Your task to perform on an android device: check out phone information Image 0: 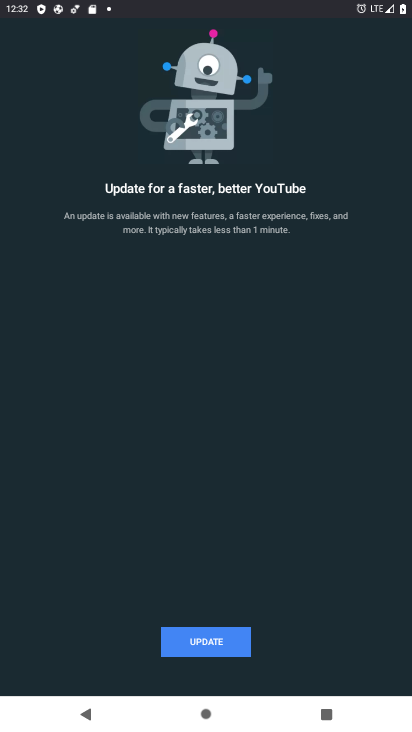
Step 0: press home button
Your task to perform on an android device: check out phone information Image 1: 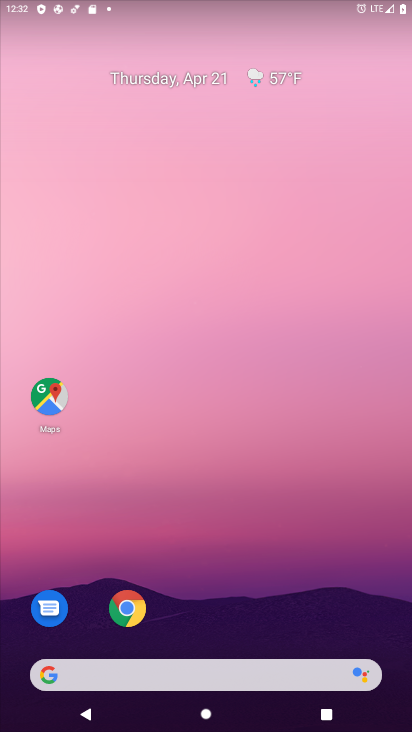
Step 1: drag from (213, 619) to (243, 166)
Your task to perform on an android device: check out phone information Image 2: 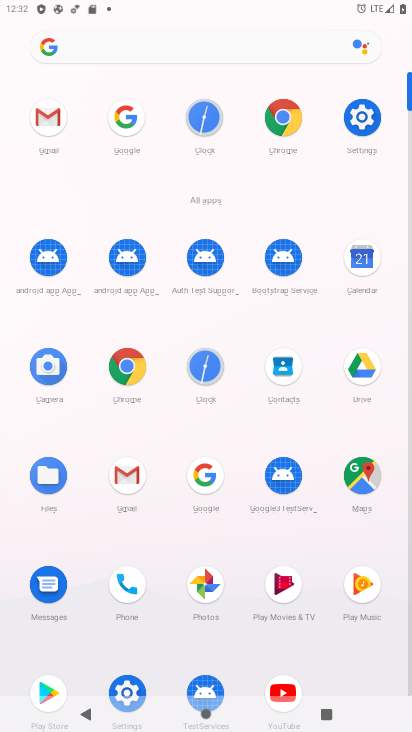
Step 2: click (355, 125)
Your task to perform on an android device: check out phone information Image 3: 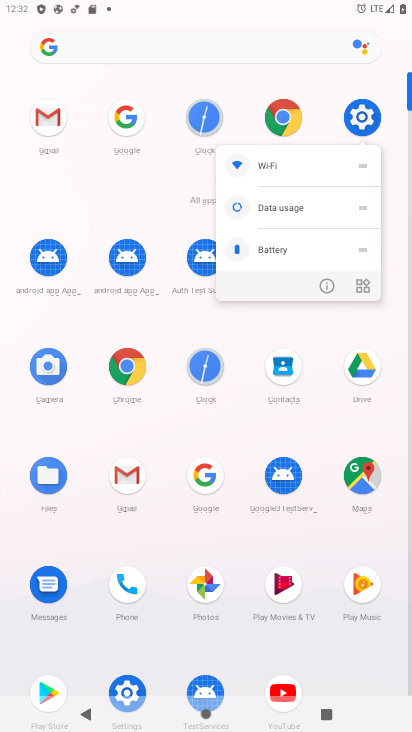
Step 3: click (363, 119)
Your task to perform on an android device: check out phone information Image 4: 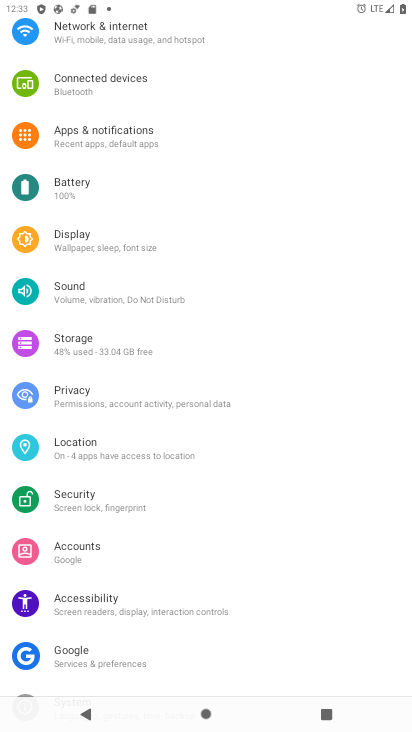
Step 4: drag from (193, 583) to (263, 120)
Your task to perform on an android device: check out phone information Image 5: 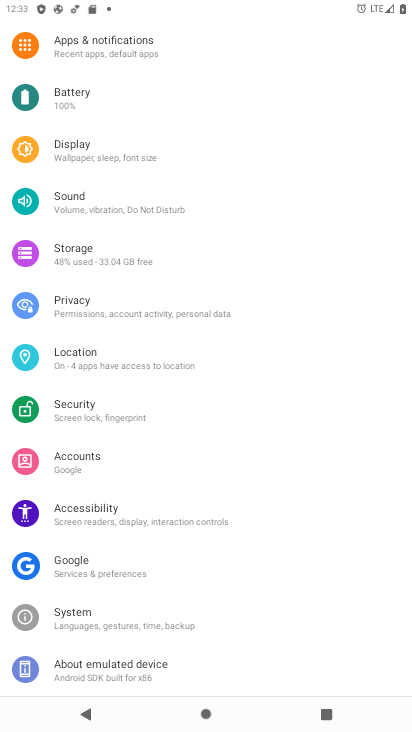
Step 5: click (127, 664)
Your task to perform on an android device: check out phone information Image 6: 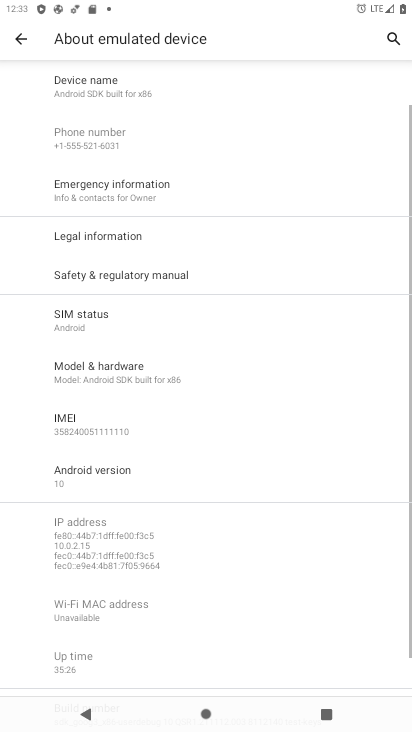
Step 6: task complete